Your task to perform on an android device: uninstall "Grab" Image 0: 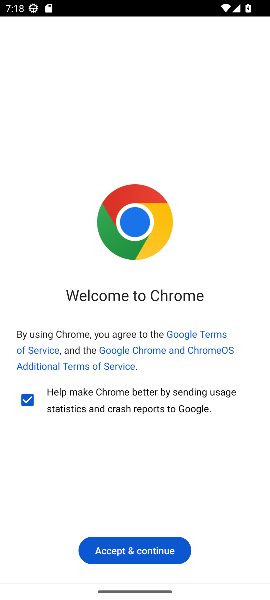
Step 0: click (105, 557)
Your task to perform on an android device: uninstall "Grab" Image 1: 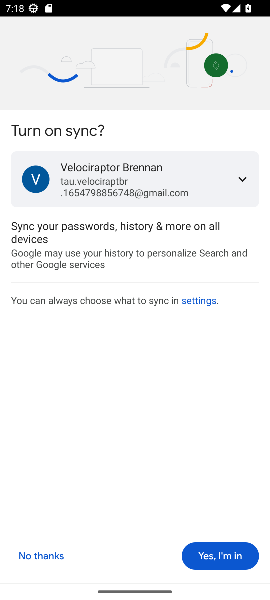
Step 1: press home button
Your task to perform on an android device: uninstall "Grab" Image 2: 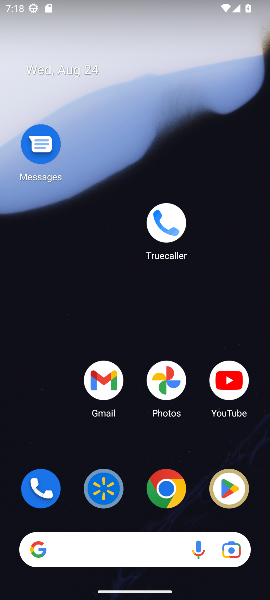
Step 2: click (229, 498)
Your task to perform on an android device: uninstall "Grab" Image 3: 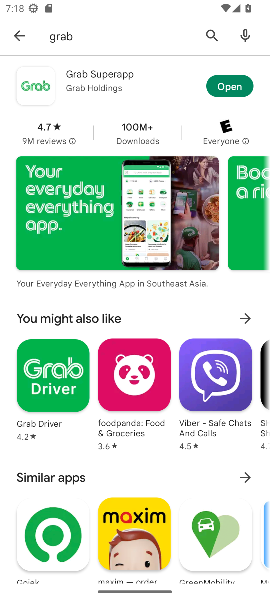
Step 3: click (209, 28)
Your task to perform on an android device: uninstall "Grab" Image 4: 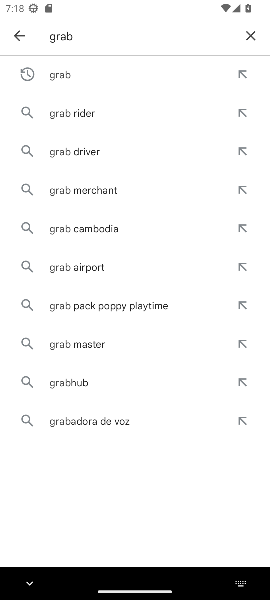
Step 4: click (258, 40)
Your task to perform on an android device: uninstall "Grab" Image 5: 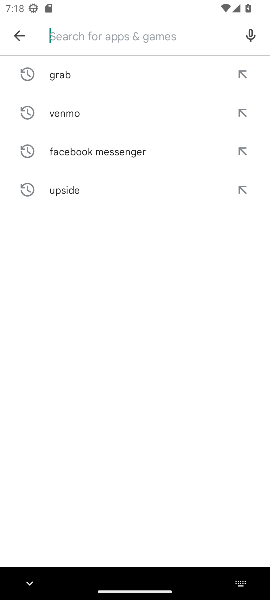
Step 5: click (13, 29)
Your task to perform on an android device: uninstall "Grab" Image 6: 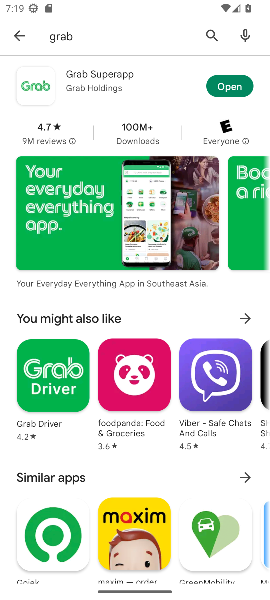
Step 6: click (232, 80)
Your task to perform on an android device: uninstall "Grab" Image 7: 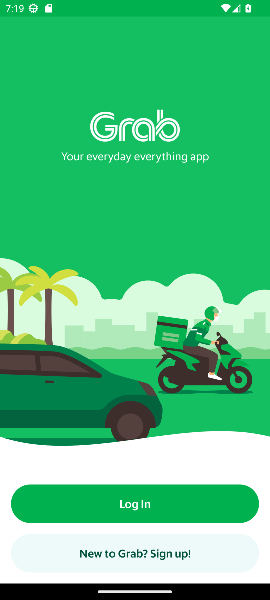
Step 7: task complete